Your task to perform on an android device: Open location settings Image 0: 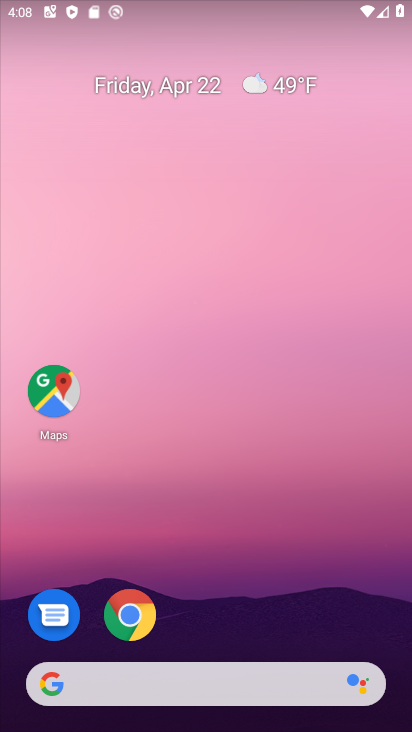
Step 0: drag from (203, 689) to (203, 159)
Your task to perform on an android device: Open location settings Image 1: 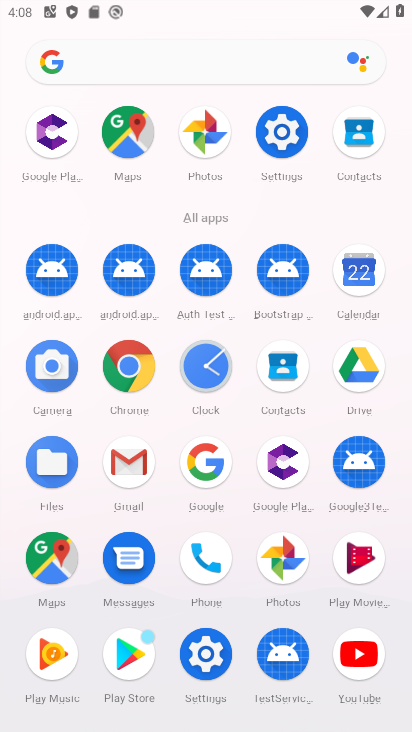
Step 1: click (281, 132)
Your task to perform on an android device: Open location settings Image 2: 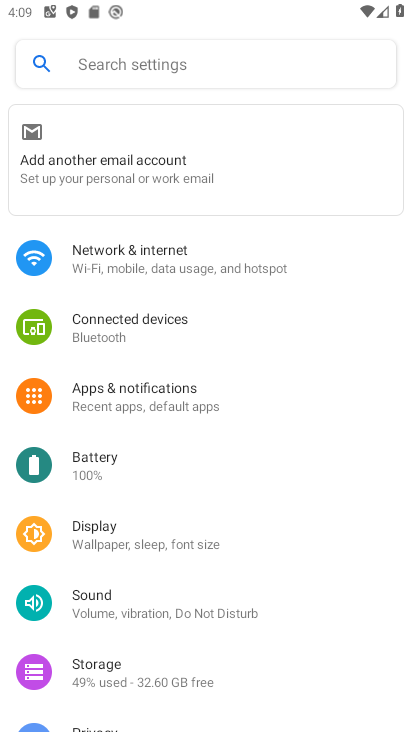
Step 2: drag from (161, 667) to (175, 293)
Your task to perform on an android device: Open location settings Image 3: 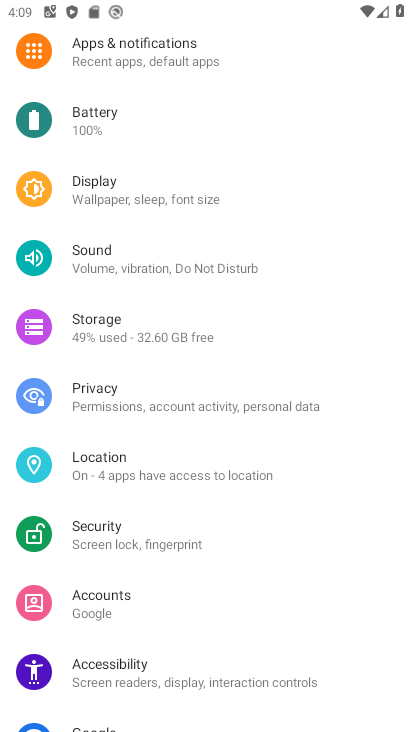
Step 3: click (113, 470)
Your task to perform on an android device: Open location settings Image 4: 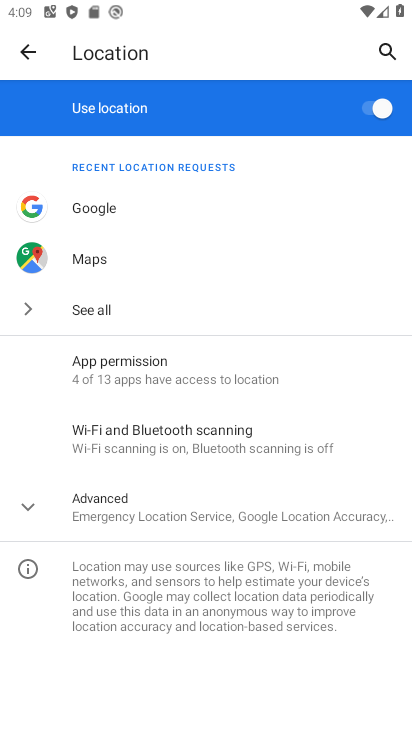
Step 4: task complete